Your task to perform on an android device: Turn on the flashlight Image 0: 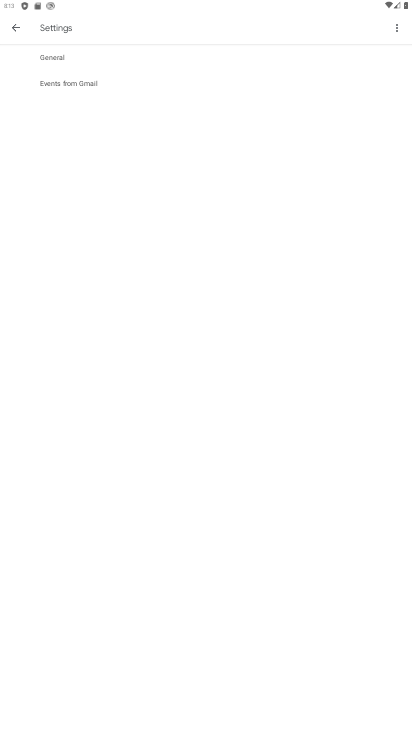
Step 0: press home button
Your task to perform on an android device: Turn on the flashlight Image 1: 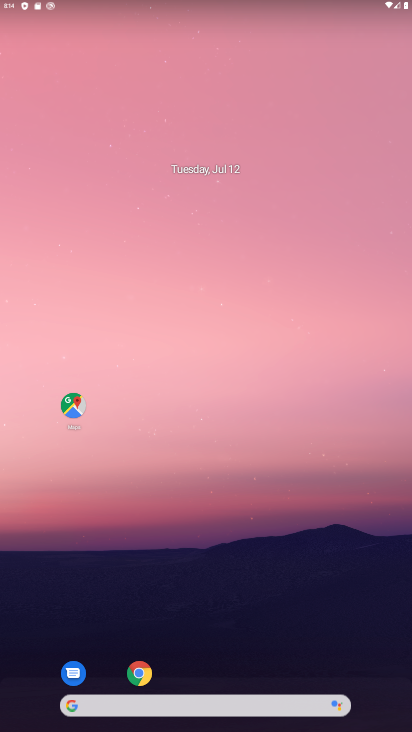
Step 1: task complete